Your task to perform on an android device: Open Google Maps and go to "Timeline" Image 0: 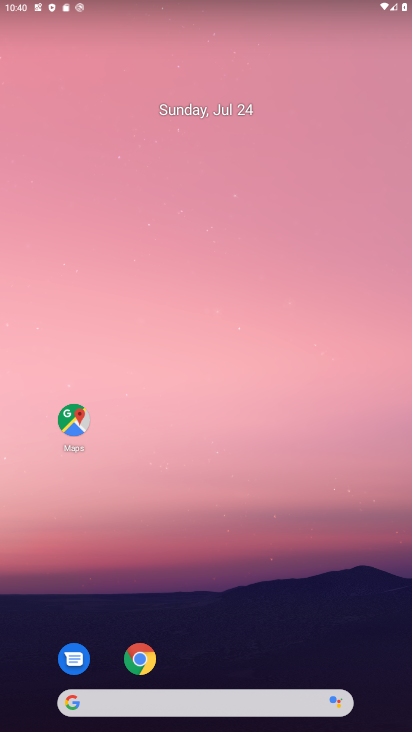
Step 0: click (74, 419)
Your task to perform on an android device: Open Google Maps and go to "Timeline" Image 1: 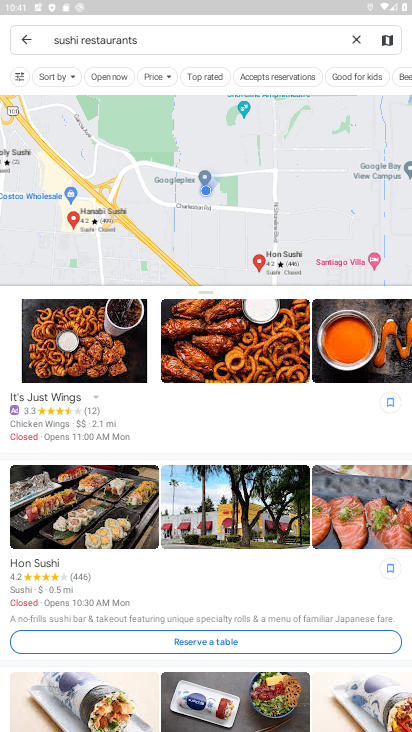
Step 1: press back button
Your task to perform on an android device: Open Google Maps and go to "Timeline" Image 2: 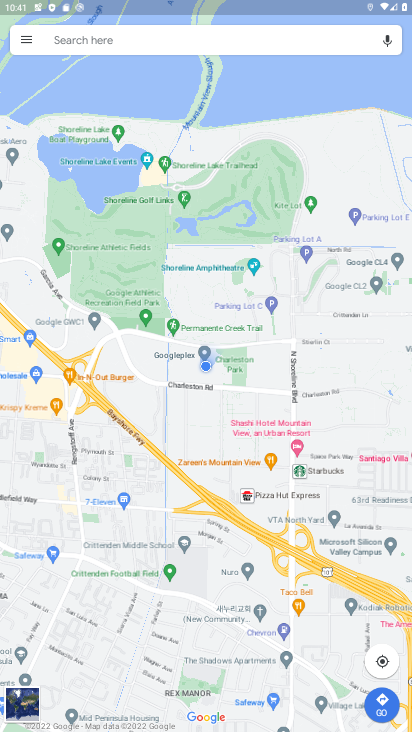
Step 2: click (26, 38)
Your task to perform on an android device: Open Google Maps and go to "Timeline" Image 3: 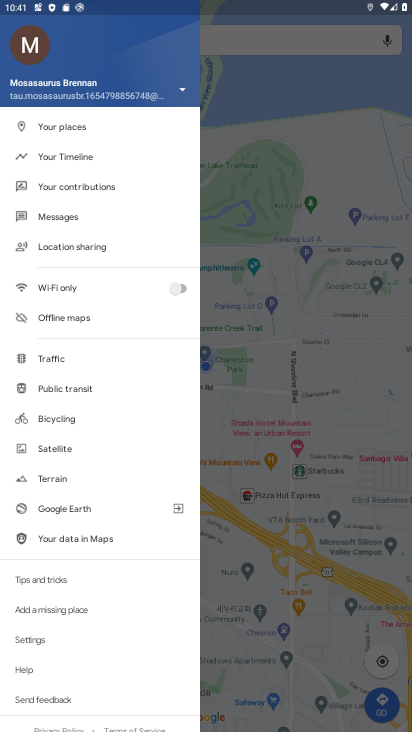
Step 3: click (73, 158)
Your task to perform on an android device: Open Google Maps and go to "Timeline" Image 4: 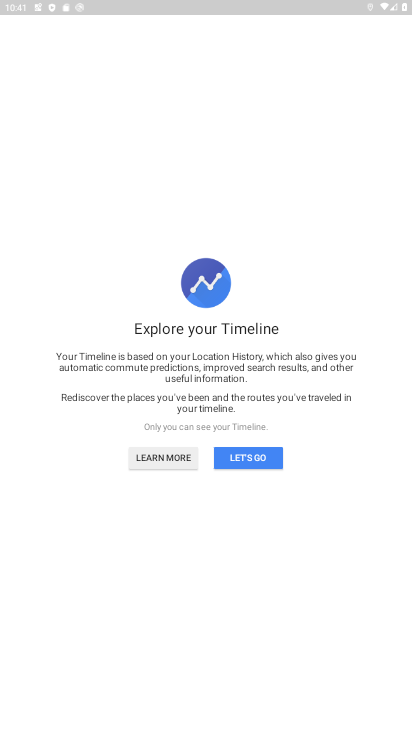
Step 4: click (244, 454)
Your task to perform on an android device: Open Google Maps and go to "Timeline" Image 5: 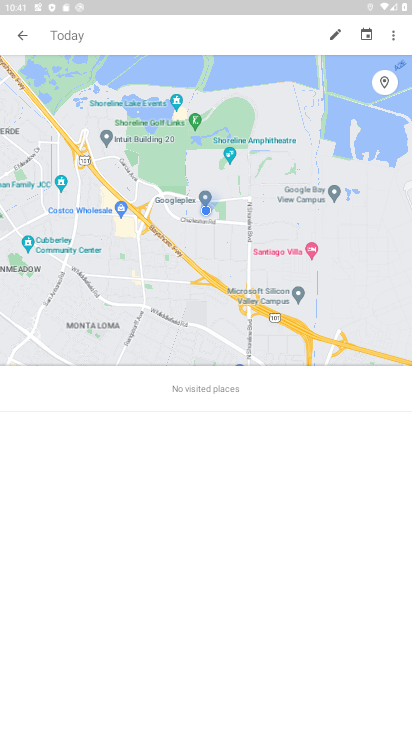
Step 5: task complete